Your task to perform on an android device: Add logitech g pro to the cart on walmart Image 0: 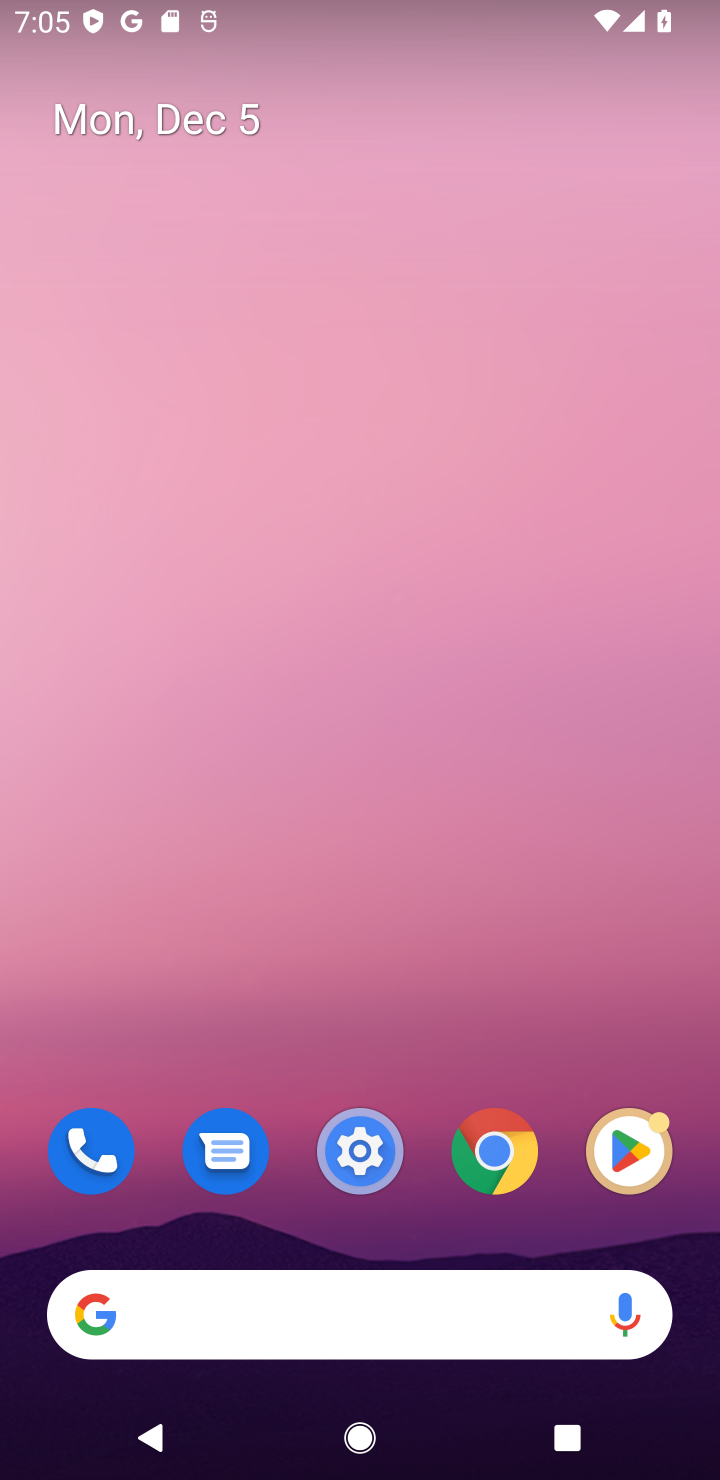
Step 0: click (325, 1304)
Your task to perform on an android device: Add logitech g pro to the cart on walmart Image 1: 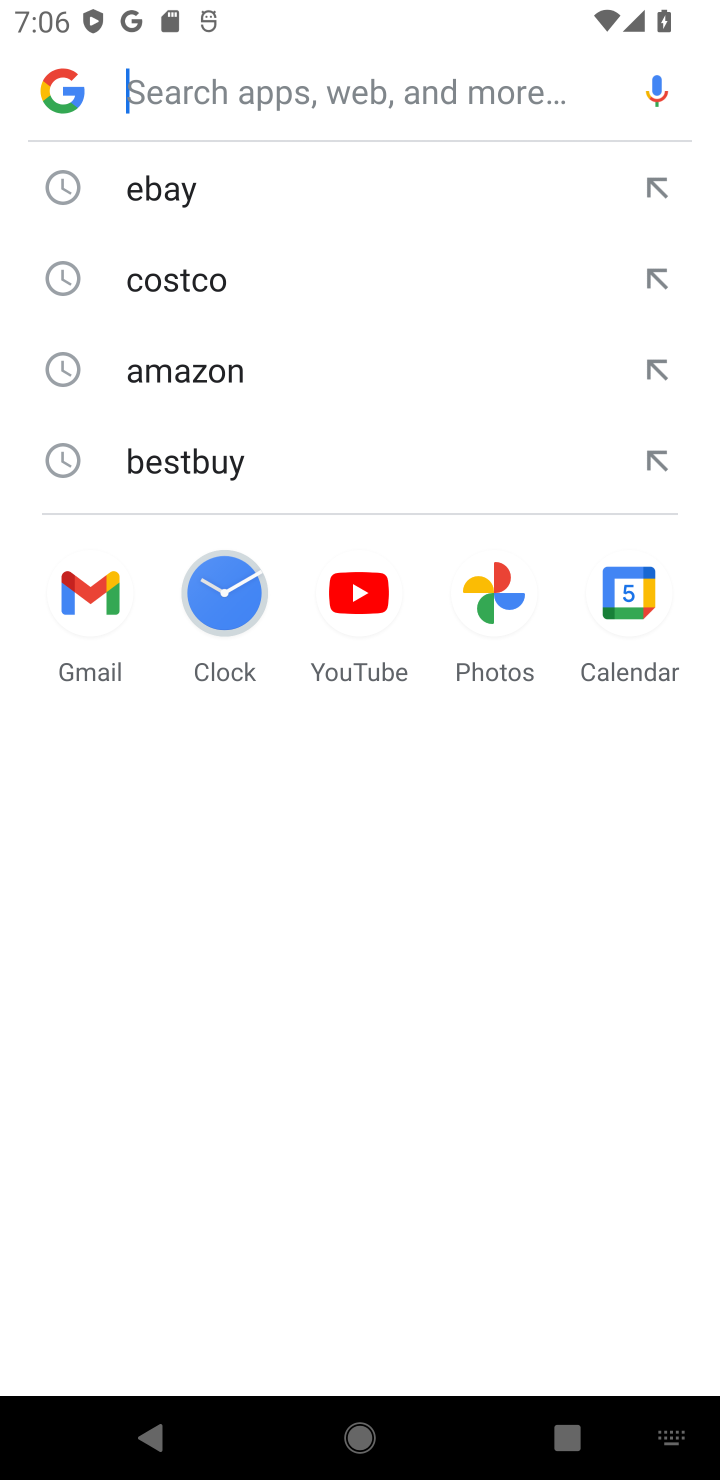
Step 1: type "walmart"
Your task to perform on an android device: Add logitech g pro to the cart on walmart Image 2: 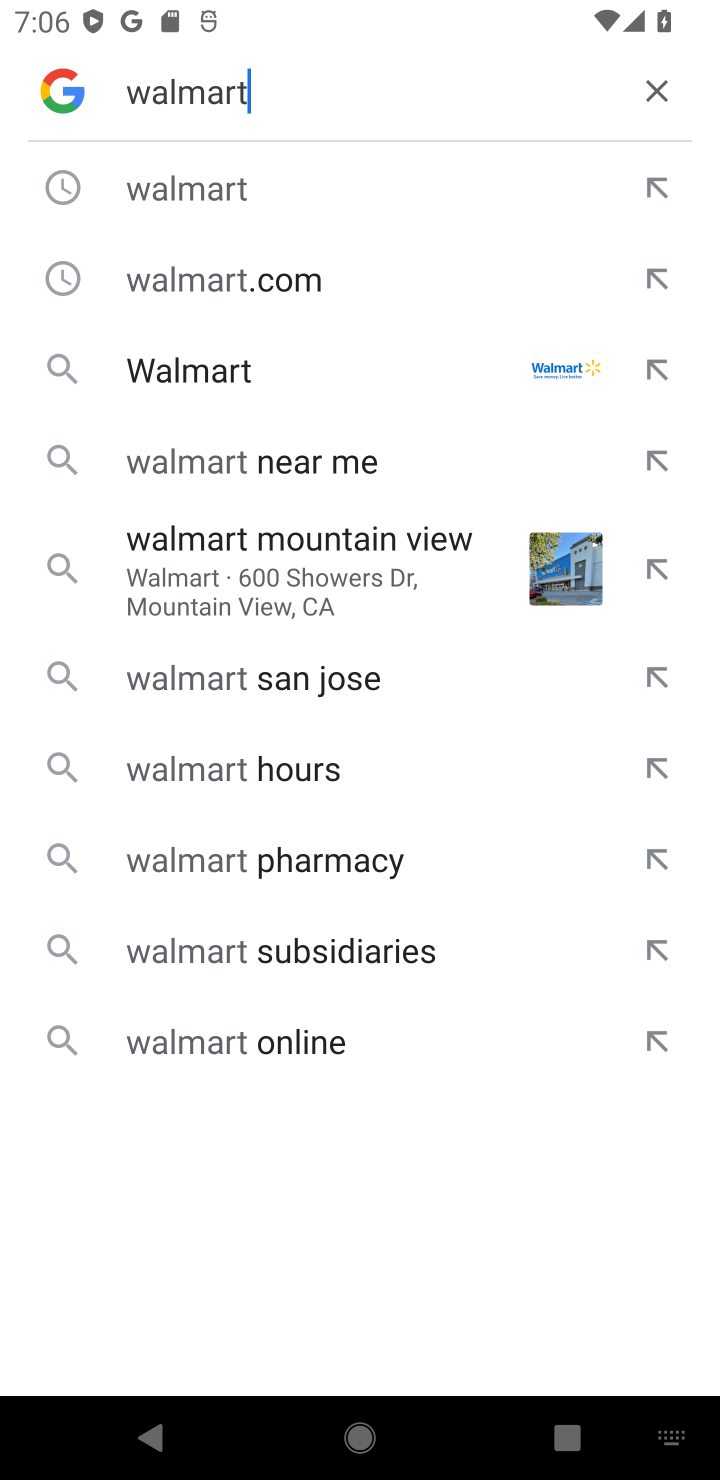
Step 2: click (206, 206)
Your task to perform on an android device: Add logitech g pro to the cart on walmart Image 3: 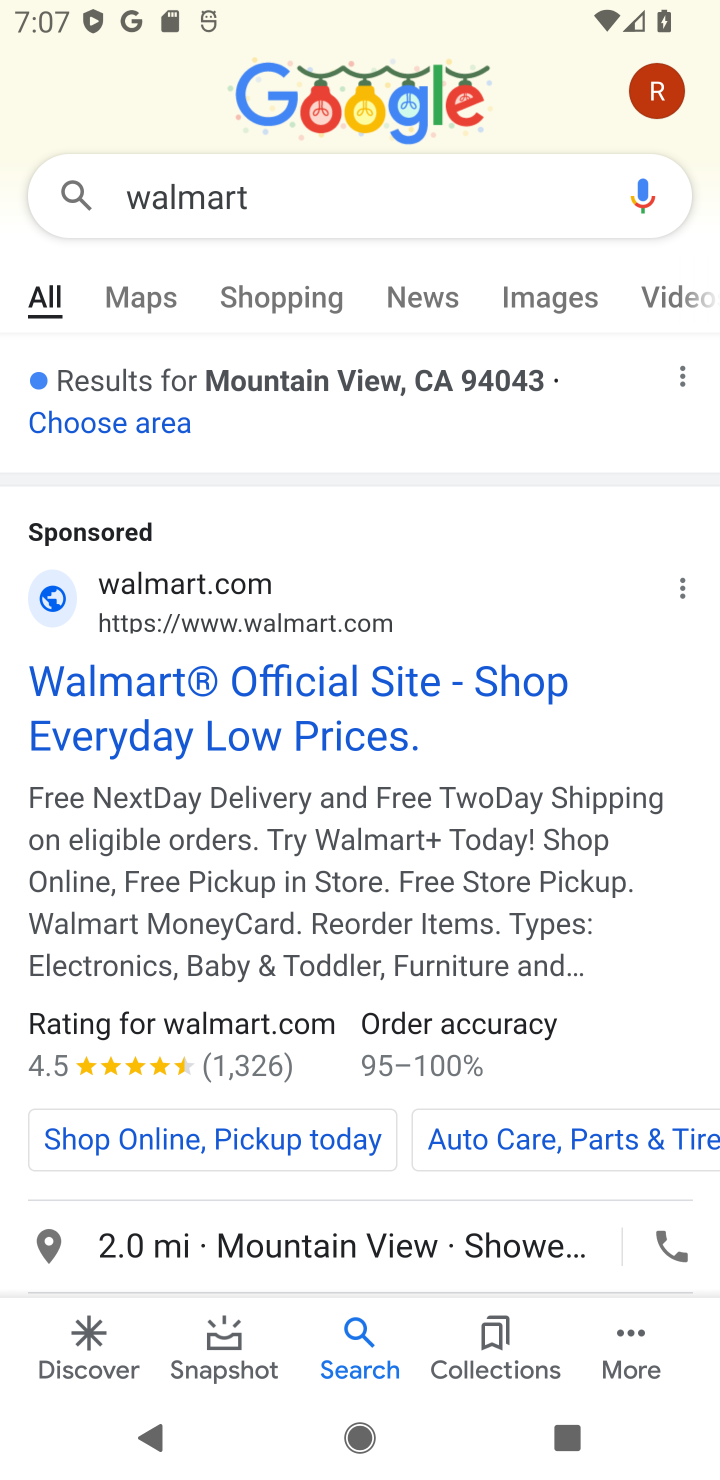
Step 3: click (380, 645)
Your task to perform on an android device: Add logitech g pro to the cart on walmart Image 4: 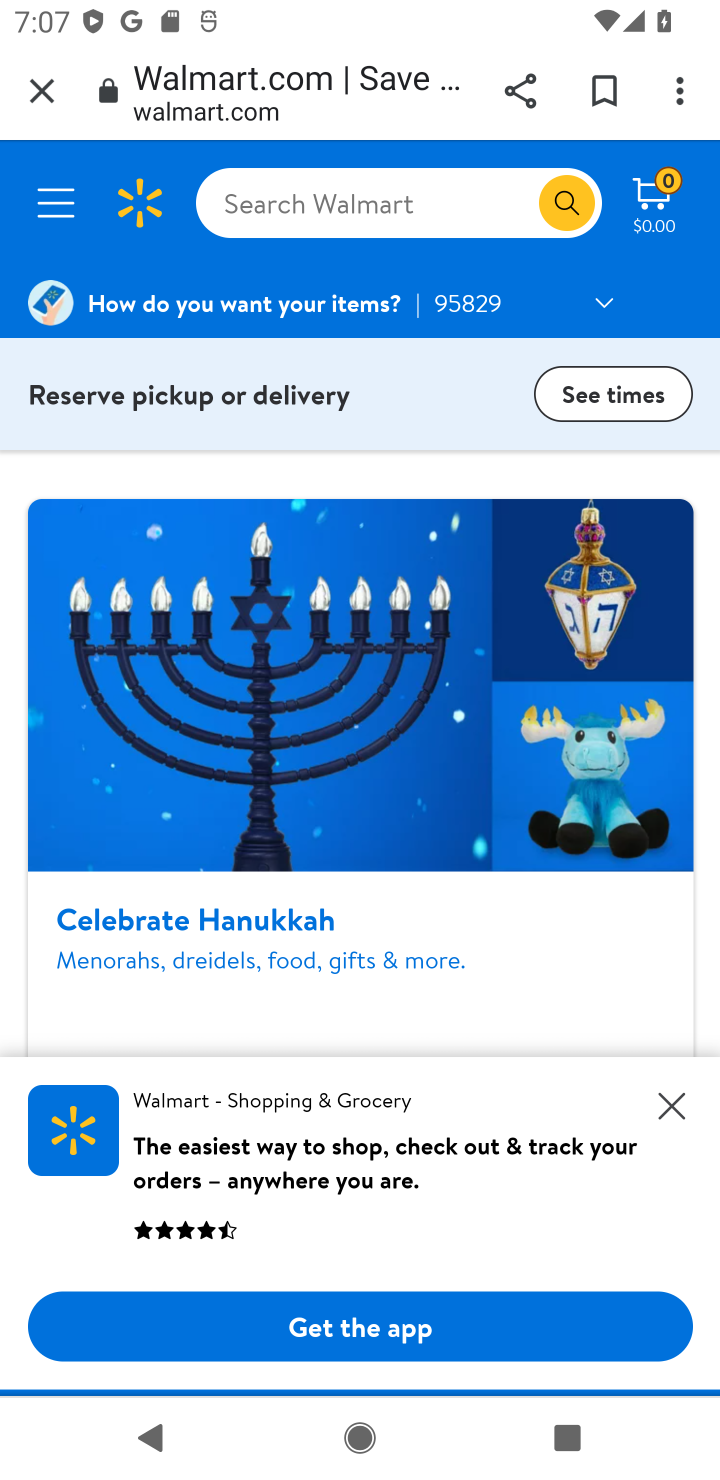
Step 4: click (644, 1115)
Your task to perform on an android device: Add logitech g pro to the cart on walmart Image 5: 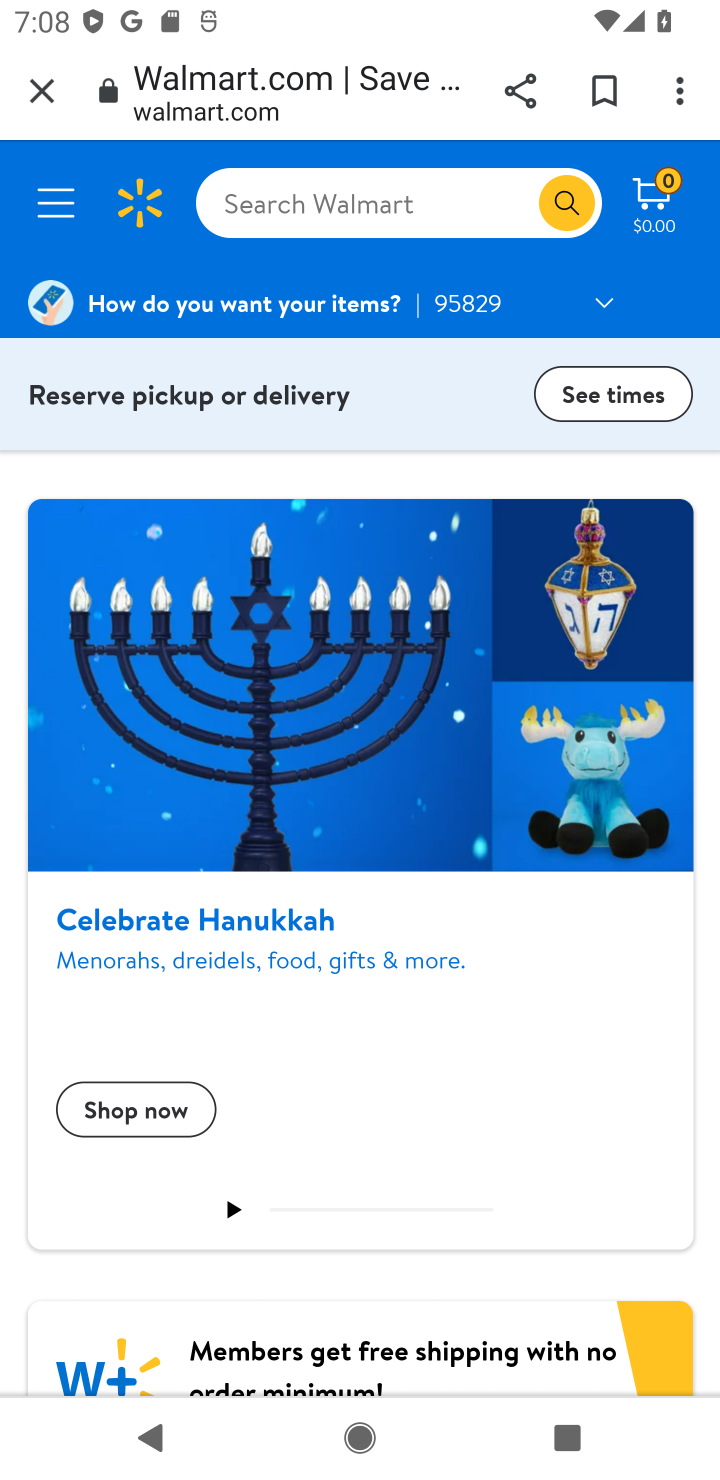
Step 5: click (378, 211)
Your task to perform on an android device: Add logitech g pro to the cart on walmart Image 6: 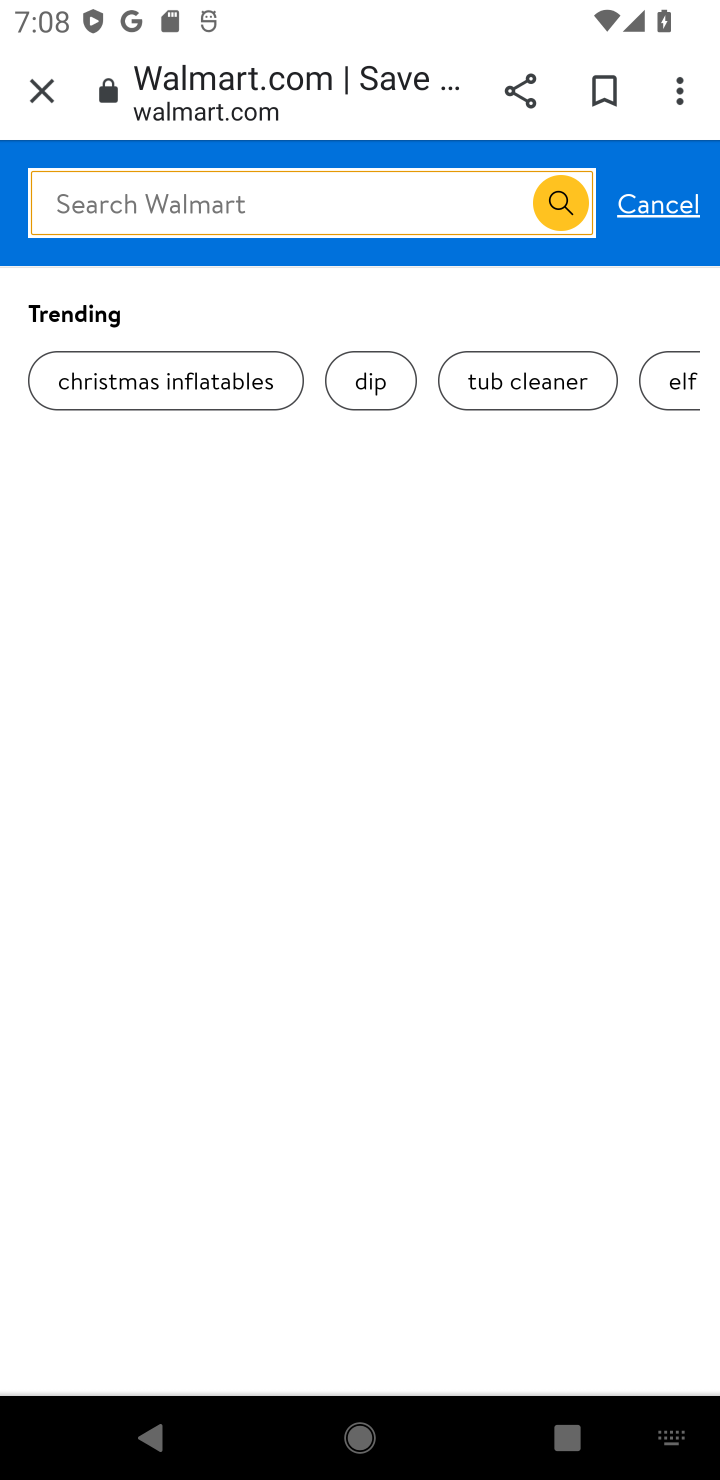
Step 6: type "logitech gpro"
Your task to perform on an android device: Add logitech g pro to the cart on walmart Image 7: 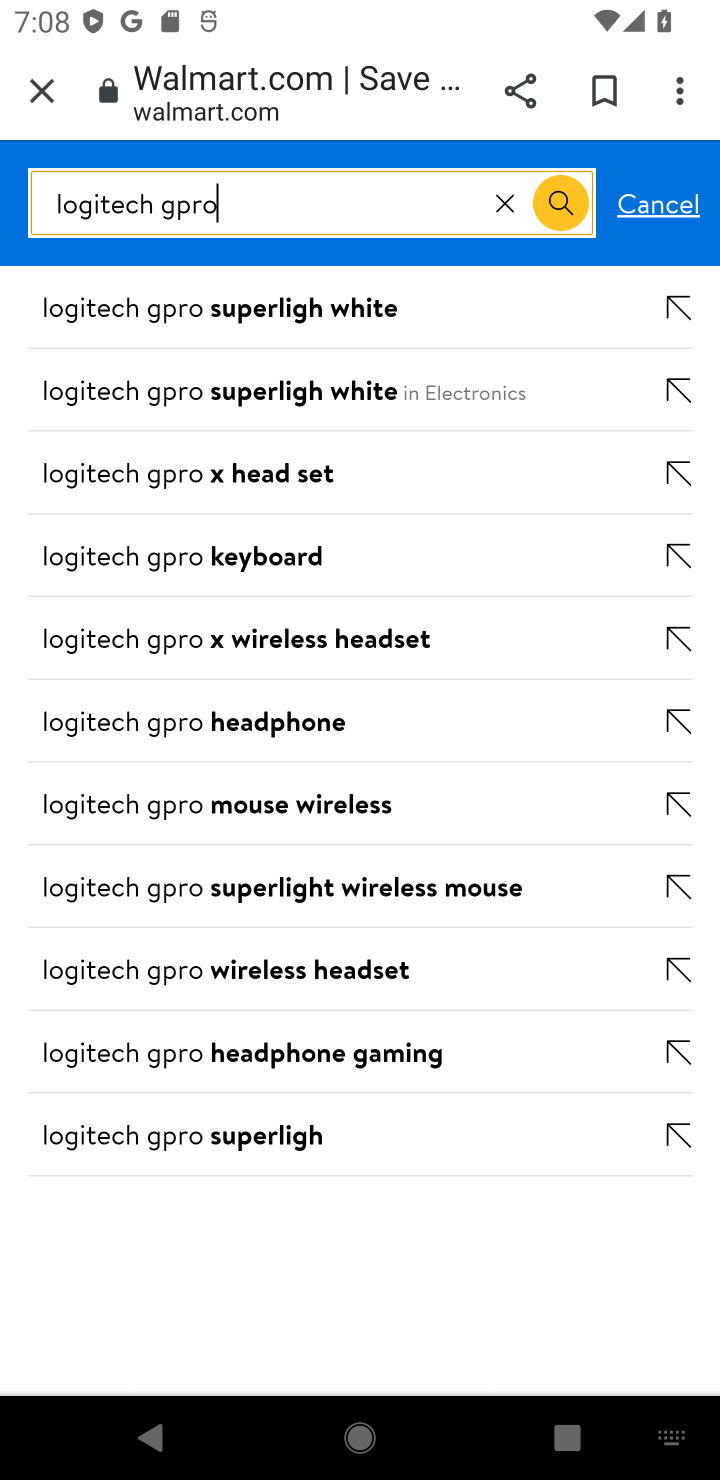
Step 7: click (563, 220)
Your task to perform on an android device: Add logitech g pro to the cart on walmart Image 8: 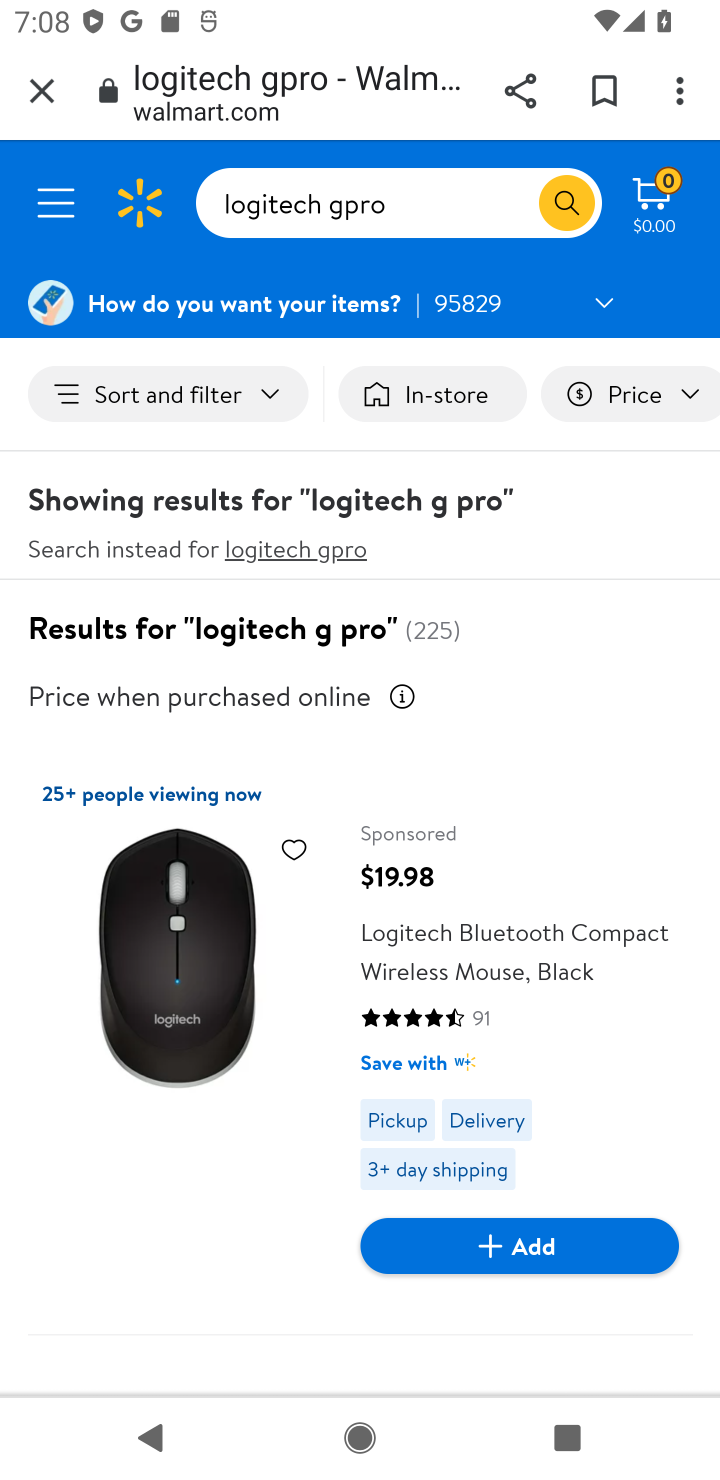
Step 8: click (563, 1256)
Your task to perform on an android device: Add logitech g pro to the cart on walmart Image 9: 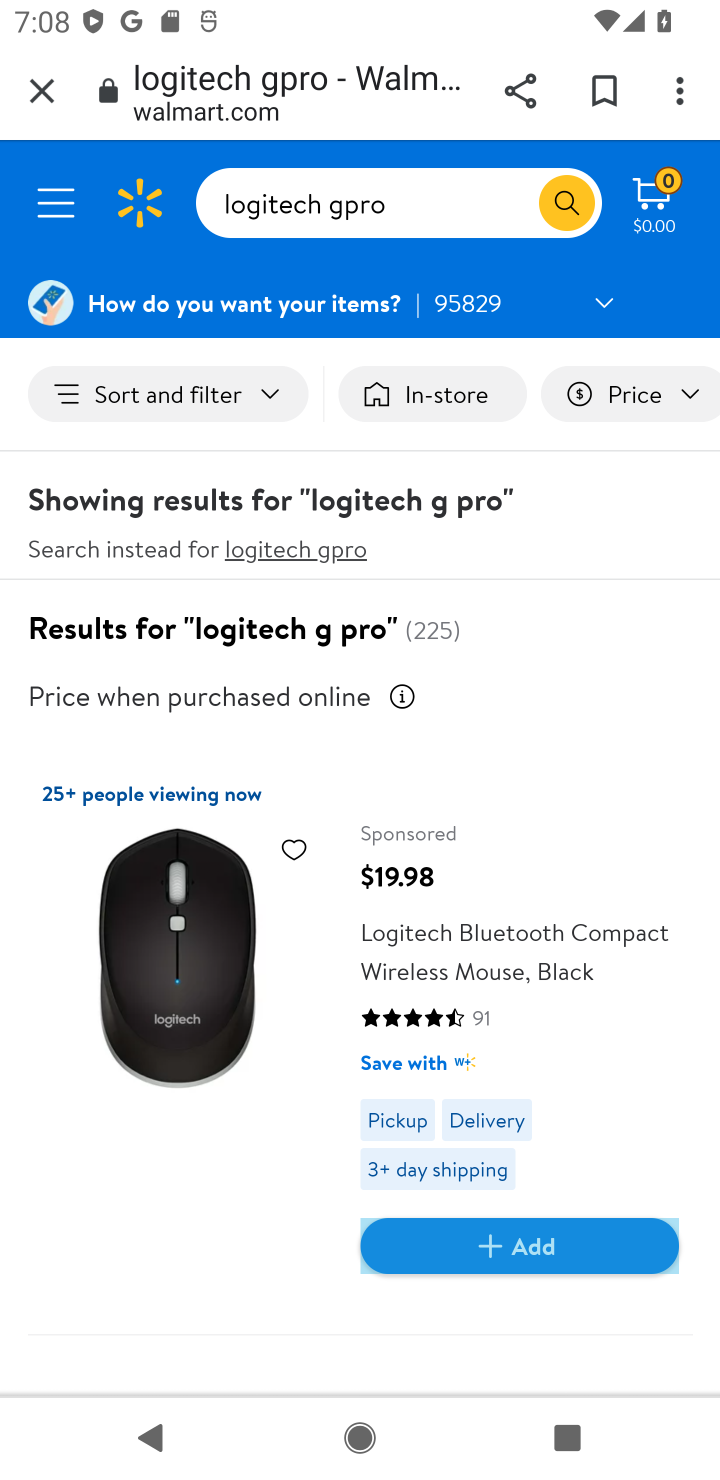
Step 9: task complete